Your task to perform on an android device: turn off notifications in google photos Image 0: 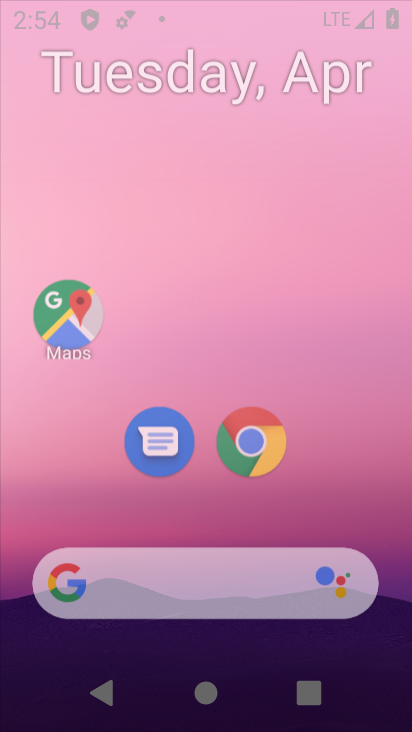
Step 0: click (183, 22)
Your task to perform on an android device: turn off notifications in google photos Image 1: 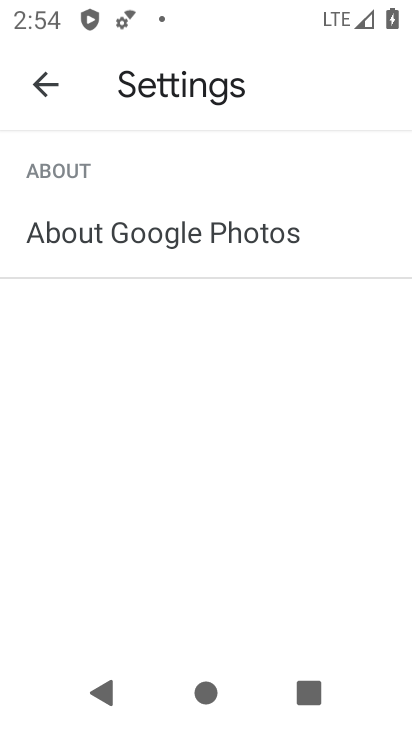
Step 1: press home button
Your task to perform on an android device: turn off notifications in google photos Image 2: 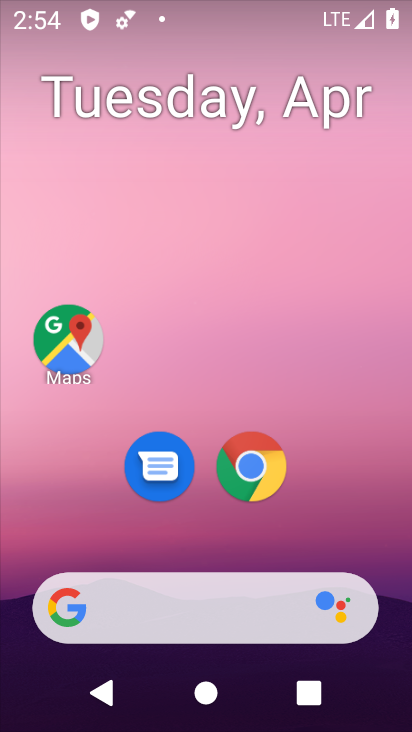
Step 2: drag from (209, 555) to (138, 80)
Your task to perform on an android device: turn off notifications in google photos Image 3: 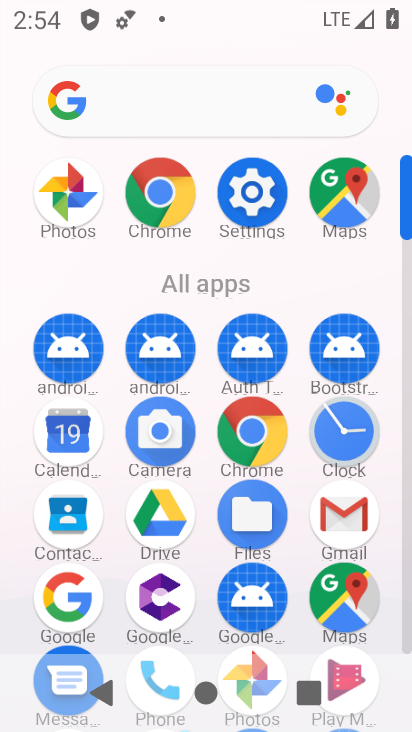
Step 3: drag from (243, 656) to (204, 341)
Your task to perform on an android device: turn off notifications in google photos Image 4: 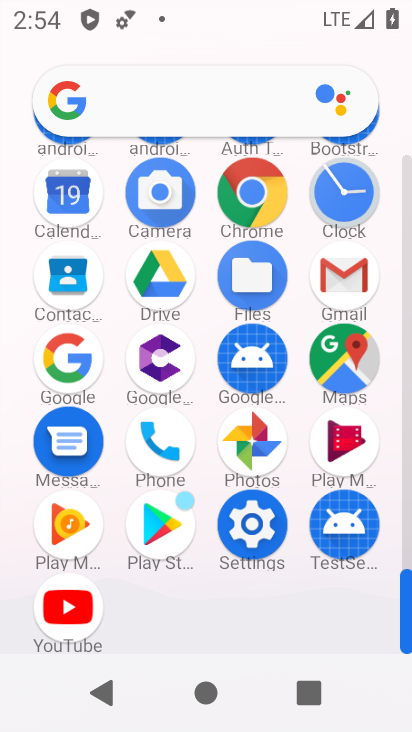
Step 4: click (242, 463)
Your task to perform on an android device: turn off notifications in google photos Image 5: 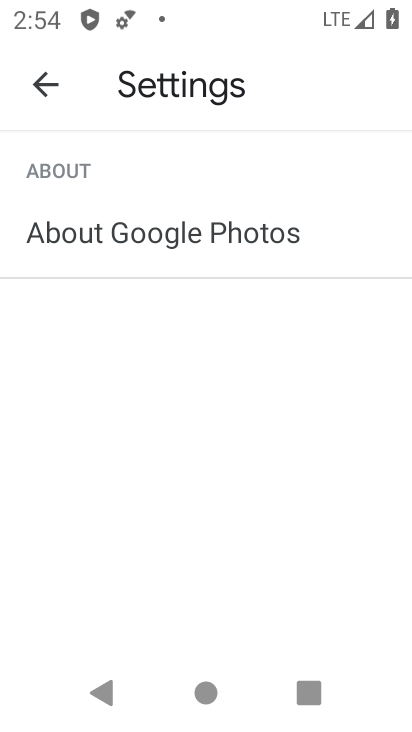
Step 5: click (50, 75)
Your task to perform on an android device: turn off notifications in google photos Image 6: 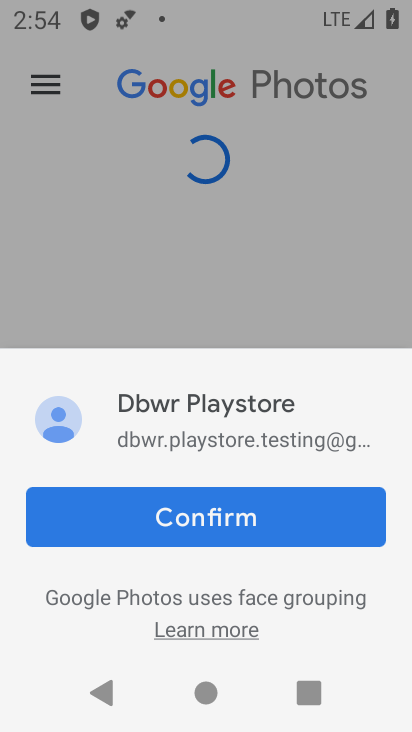
Step 6: click (49, 85)
Your task to perform on an android device: turn off notifications in google photos Image 7: 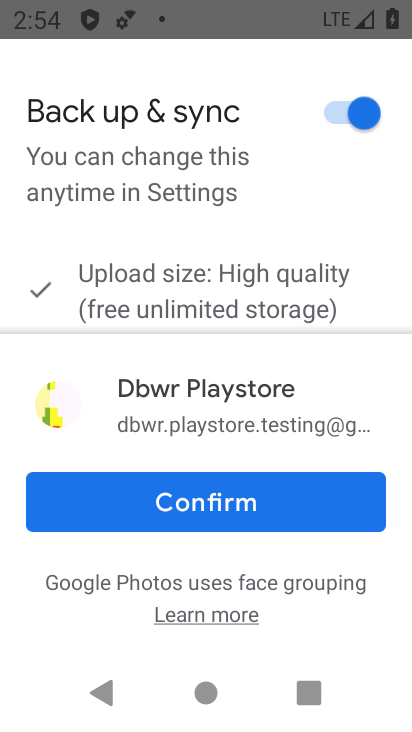
Step 7: click (169, 492)
Your task to perform on an android device: turn off notifications in google photos Image 8: 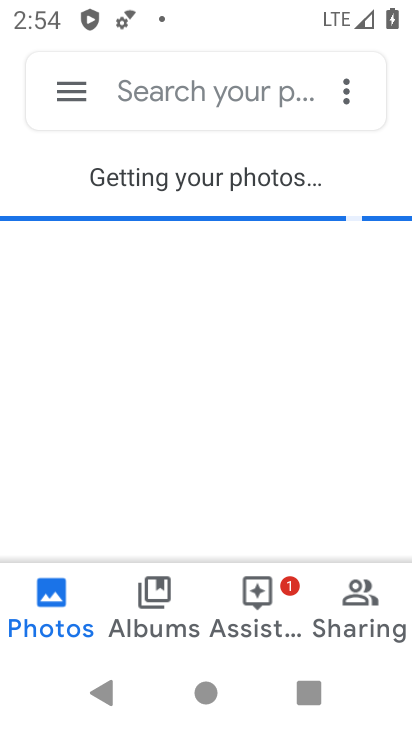
Step 8: click (68, 100)
Your task to perform on an android device: turn off notifications in google photos Image 9: 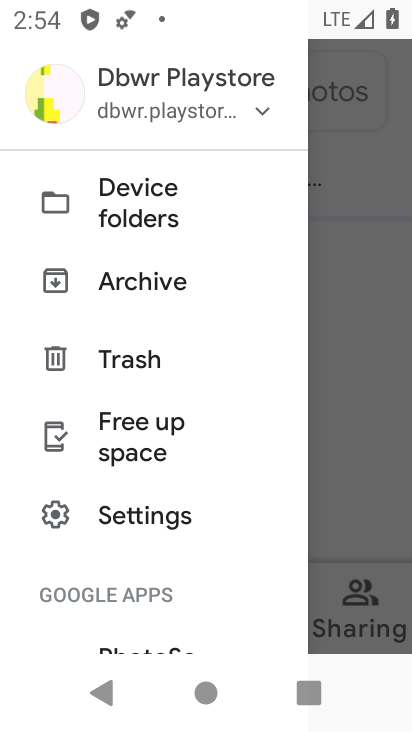
Step 9: click (102, 515)
Your task to perform on an android device: turn off notifications in google photos Image 10: 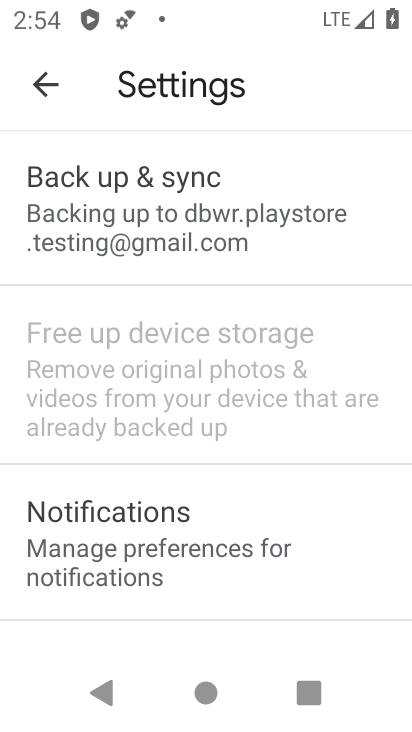
Step 10: click (114, 531)
Your task to perform on an android device: turn off notifications in google photos Image 11: 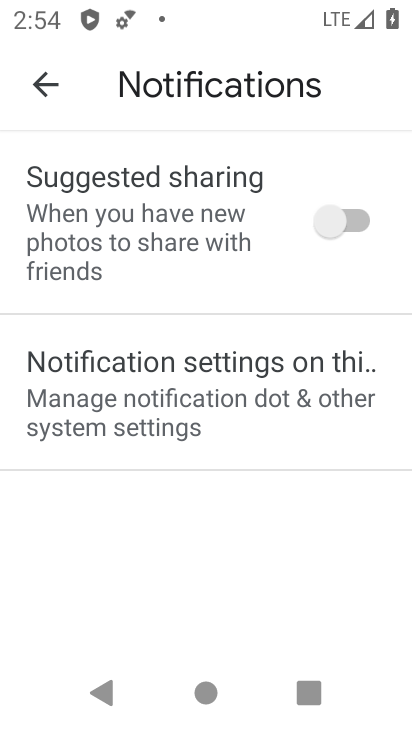
Step 11: click (148, 398)
Your task to perform on an android device: turn off notifications in google photos Image 12: 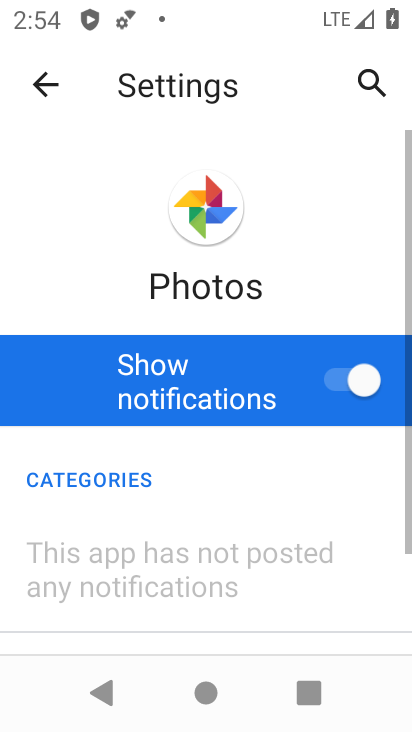
Step 12: click (330, 373)
Your task to perform on an android device: turn off notifications in google photos Image 13: 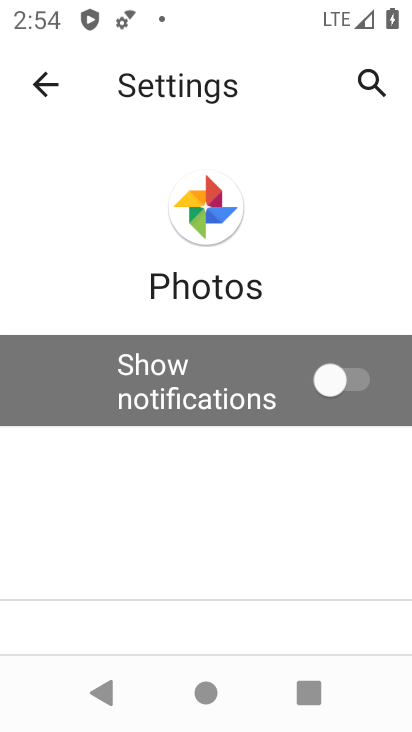
Step 13: task complete